Your task to perform on an android device: open chrome and create a bookmark for the current page Image 0: 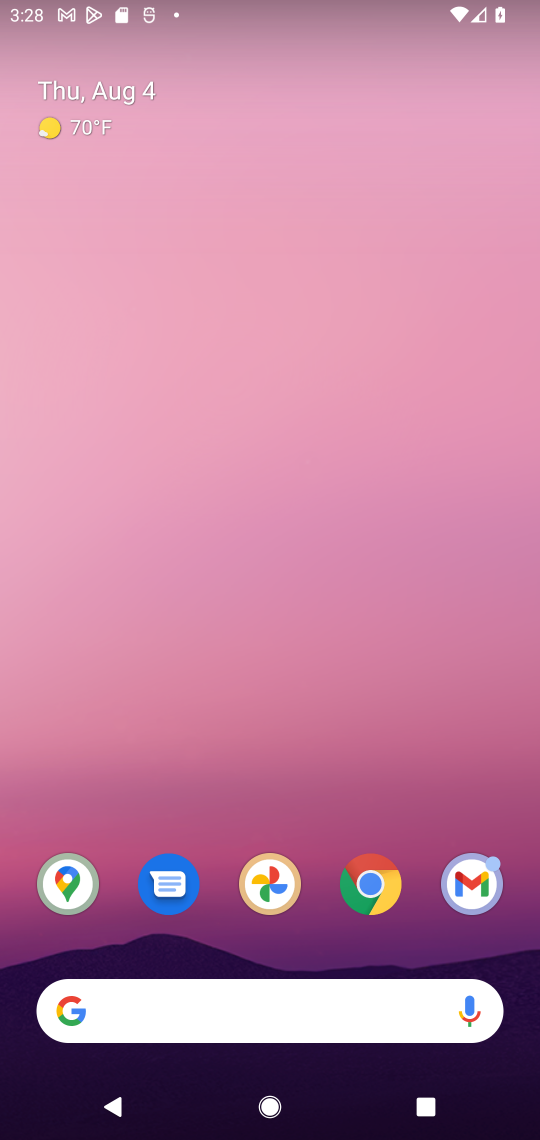
Step 0: click (394, 894)
Your task to perform on an android device: open chrome and create a bookmark for the current page Image 1: 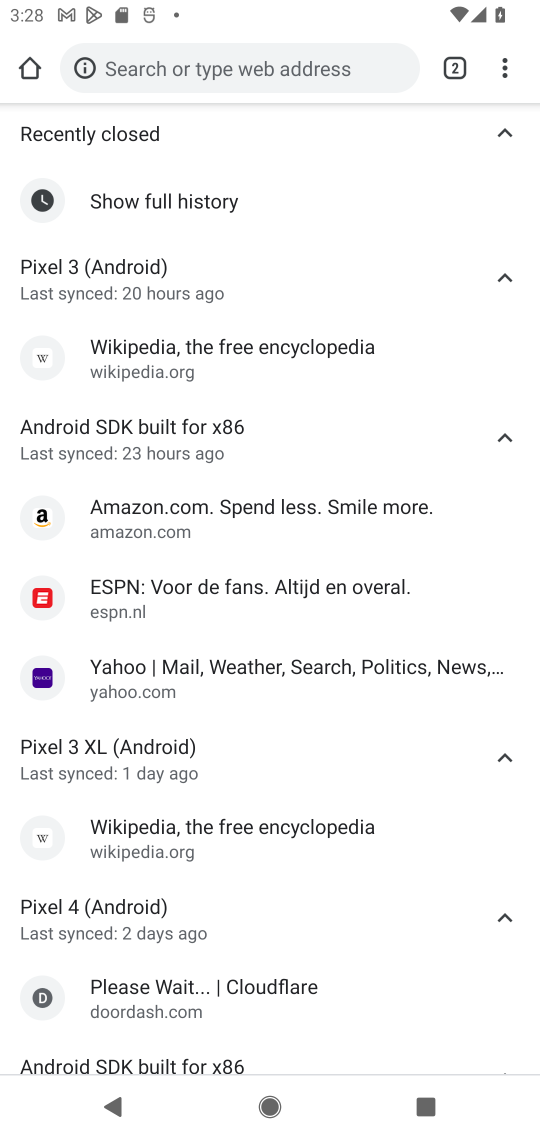
Step 1: click (509, 63)
Your task to perform on an android device: open chrome and create a bookmark for the current page Image 2: 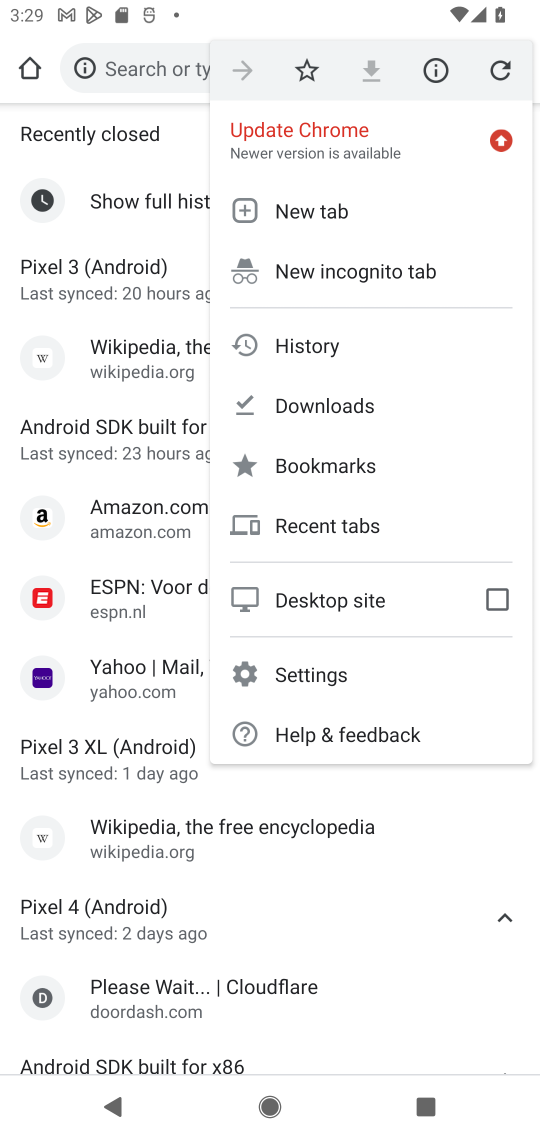
Step 2: click (251, 656)
Your task to perform on an android device: open chrome and create a bookmark for the current page Image 3: 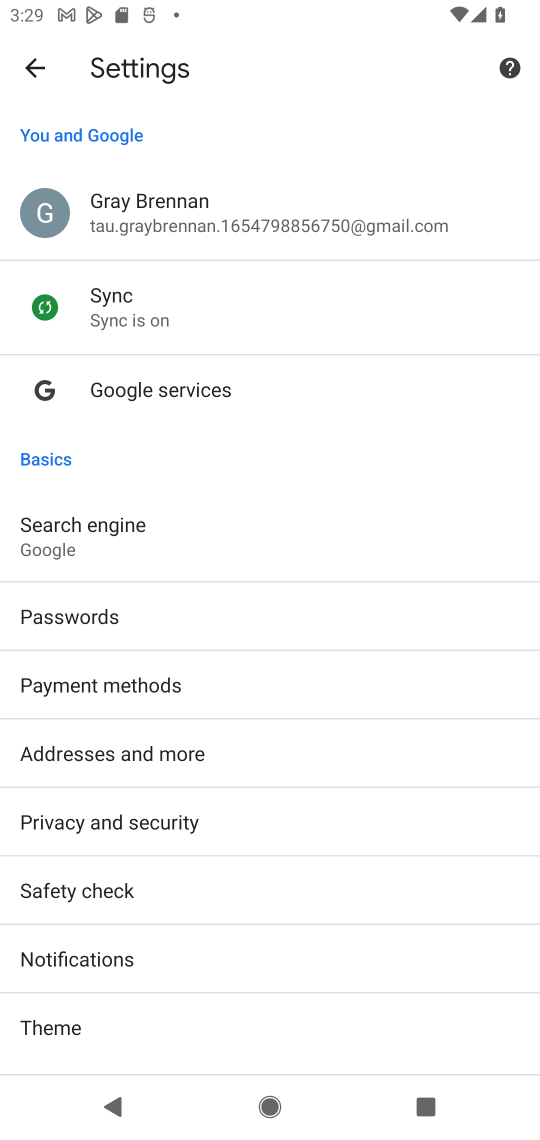
Step 3: task complete